Your task to perform on an android device: turn off sleep mode Image 0: 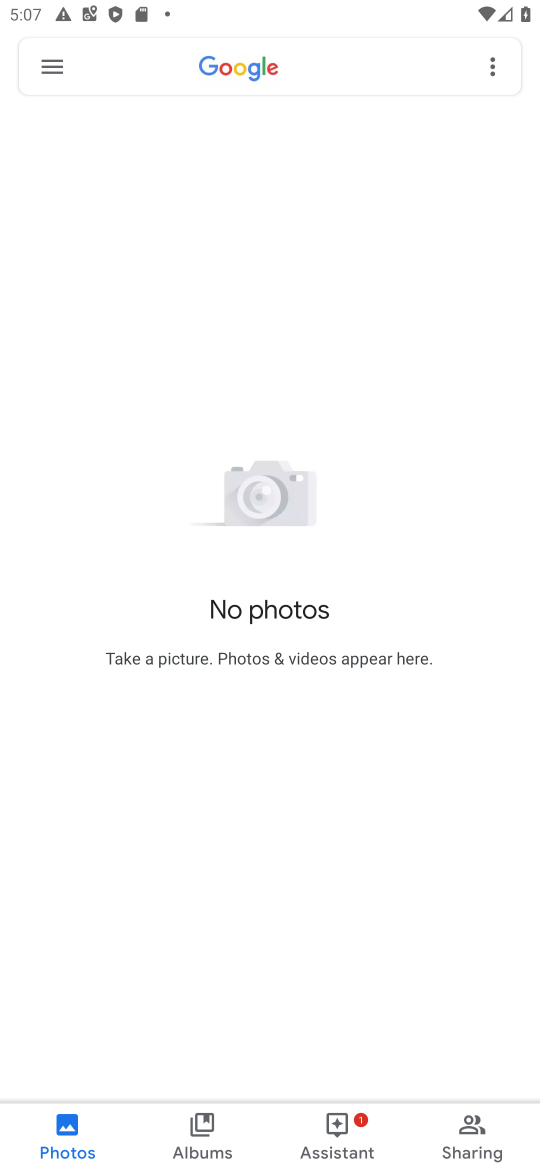
Step 0: press home button
Your task to perform on an android device: turn off sleep mode Image 1: 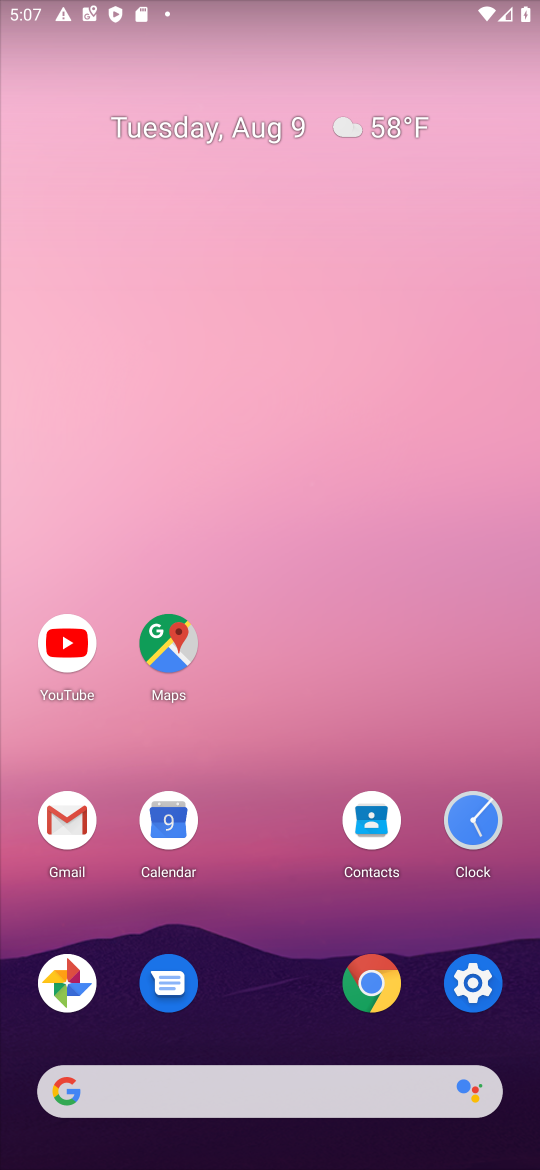
Step 1: click (478, 980)
Your task to perform on an android device: turn off sleep mode Image 2: 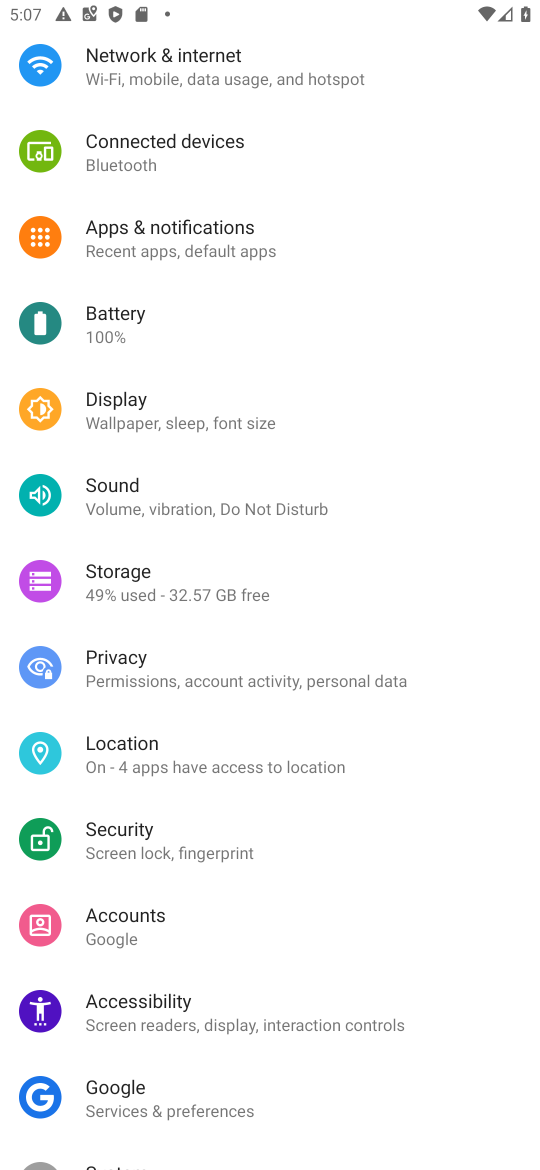
Step 2: click (112, 401)
Your task to perform on an android device: turn off sleep mode Image 3: 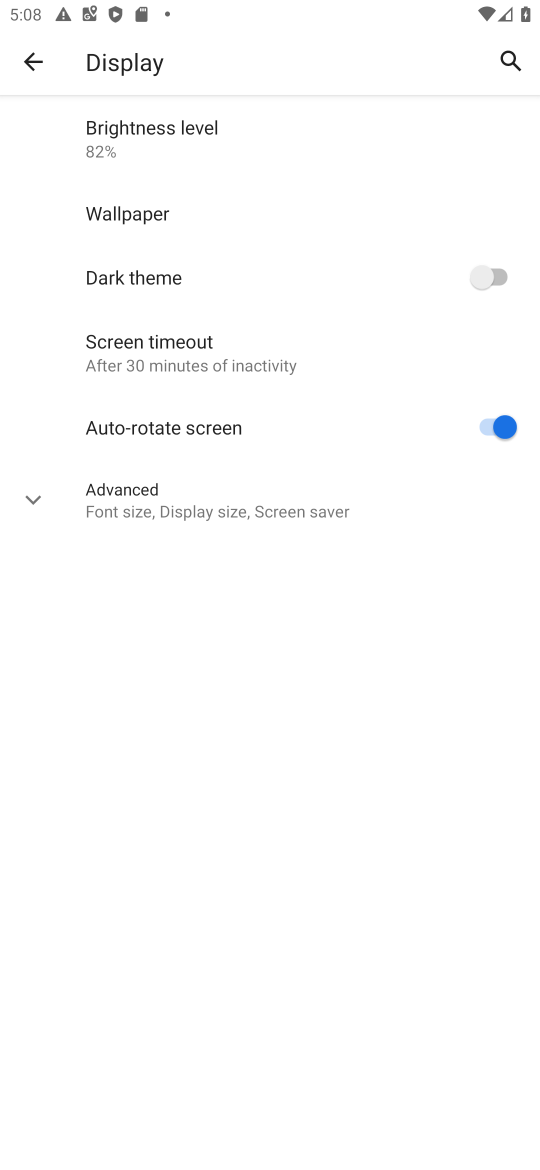
Step 3: task complete